Your task to perform on an android device: See recent photos Image 0: 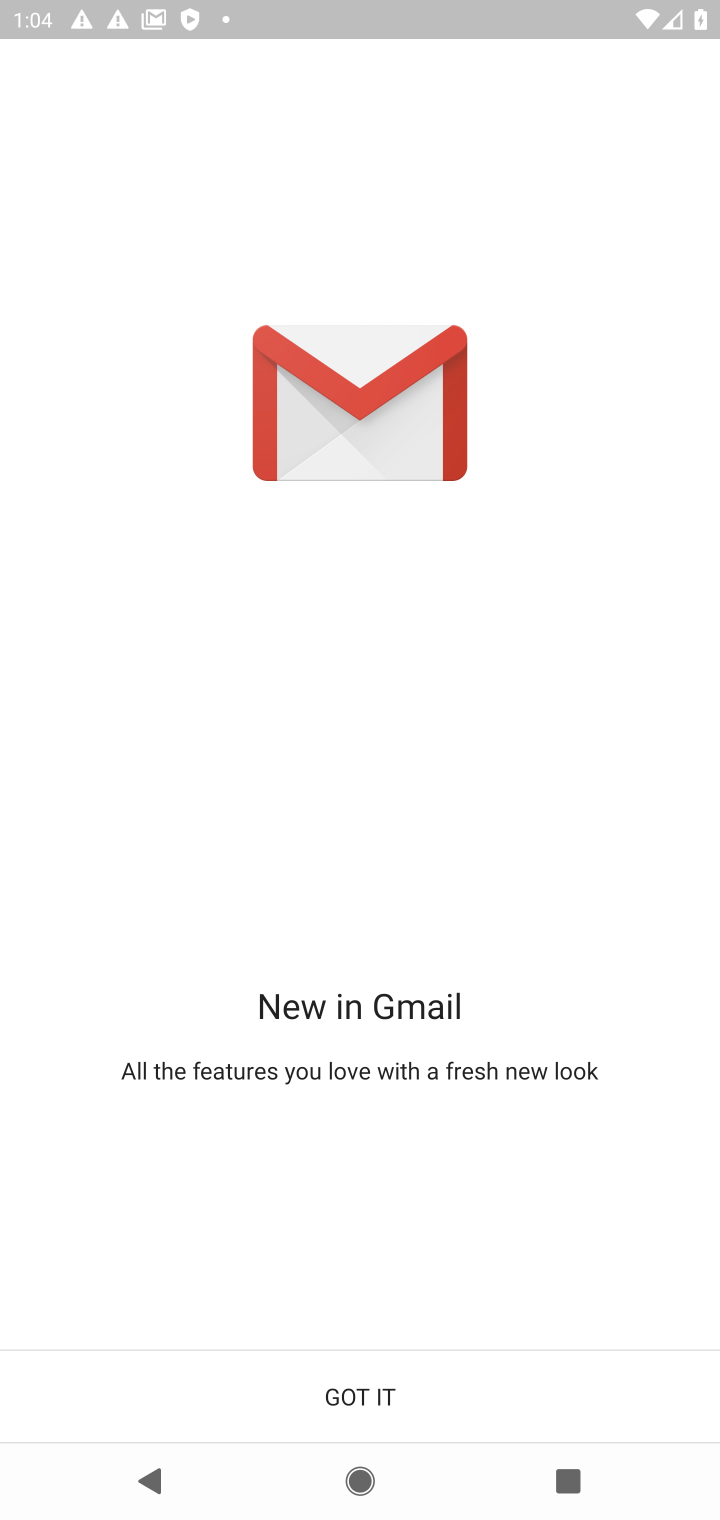
Step 0: press home button
Your task to perform on an android device: See recent photos Image 1: 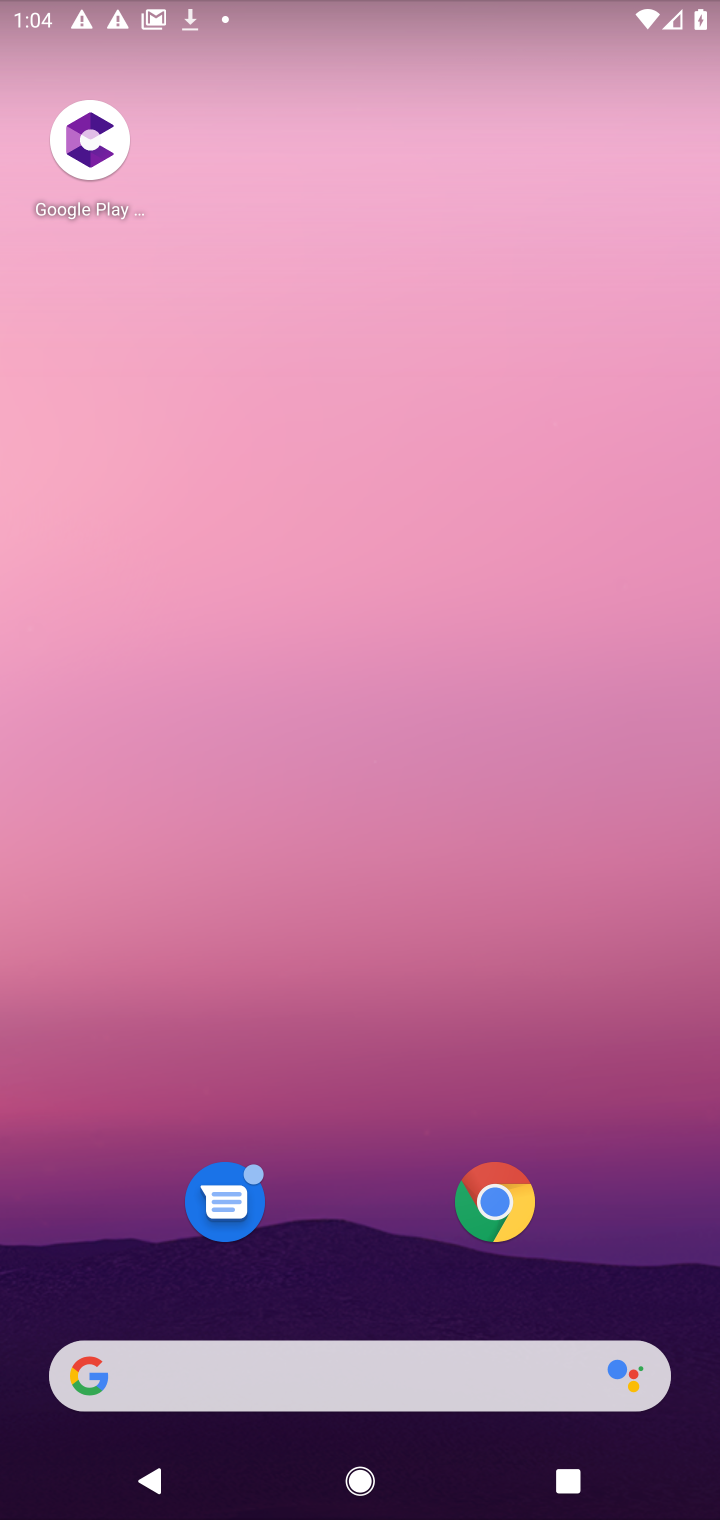
Step 1: drag from (579, 1257) to (643, 362)
Your task to perform on an android device: See recent photos Image 2: 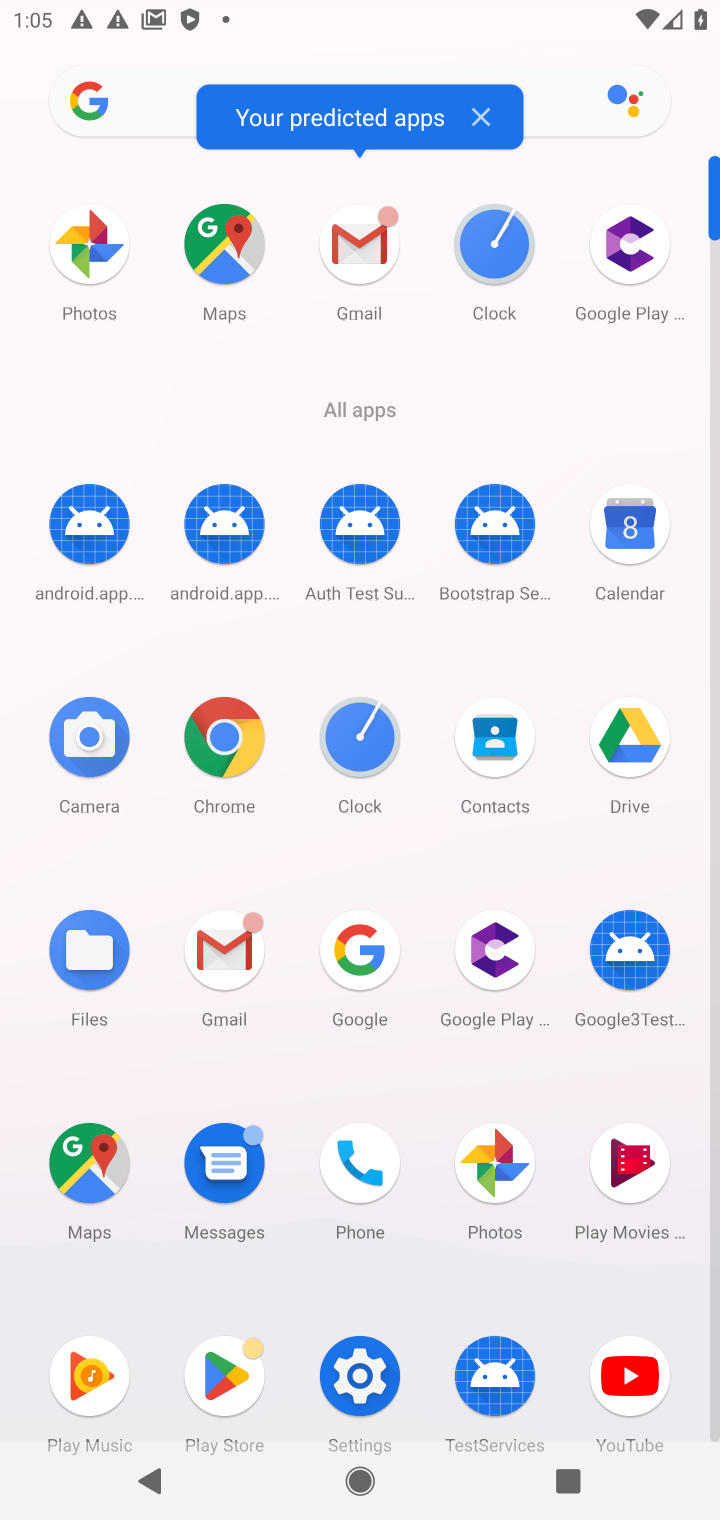
Step 2: click (502, 1173)
Your task to perform on an android device: See recent photos Image 3: 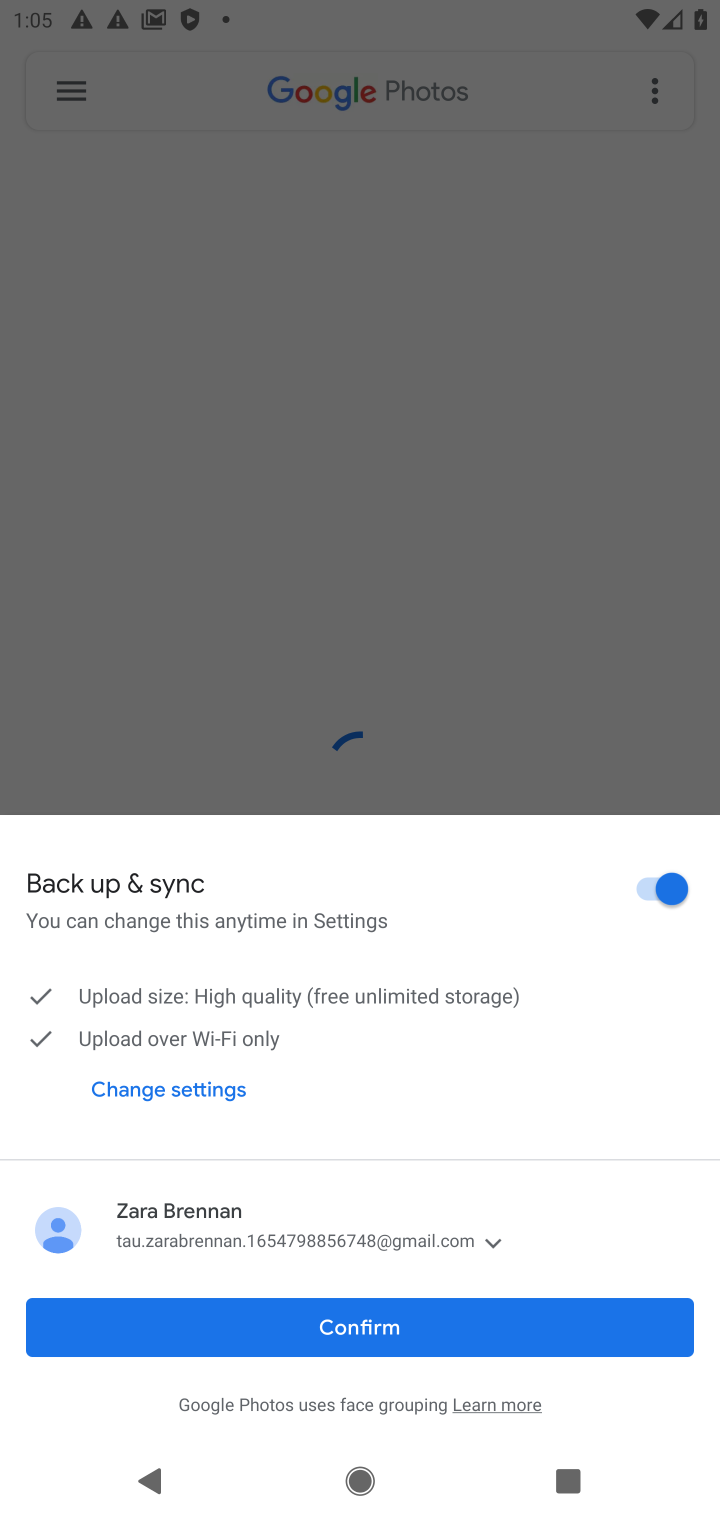
Step 3: click (442, 1339)
Your task to perform on an android device: See recent photos Image 4: 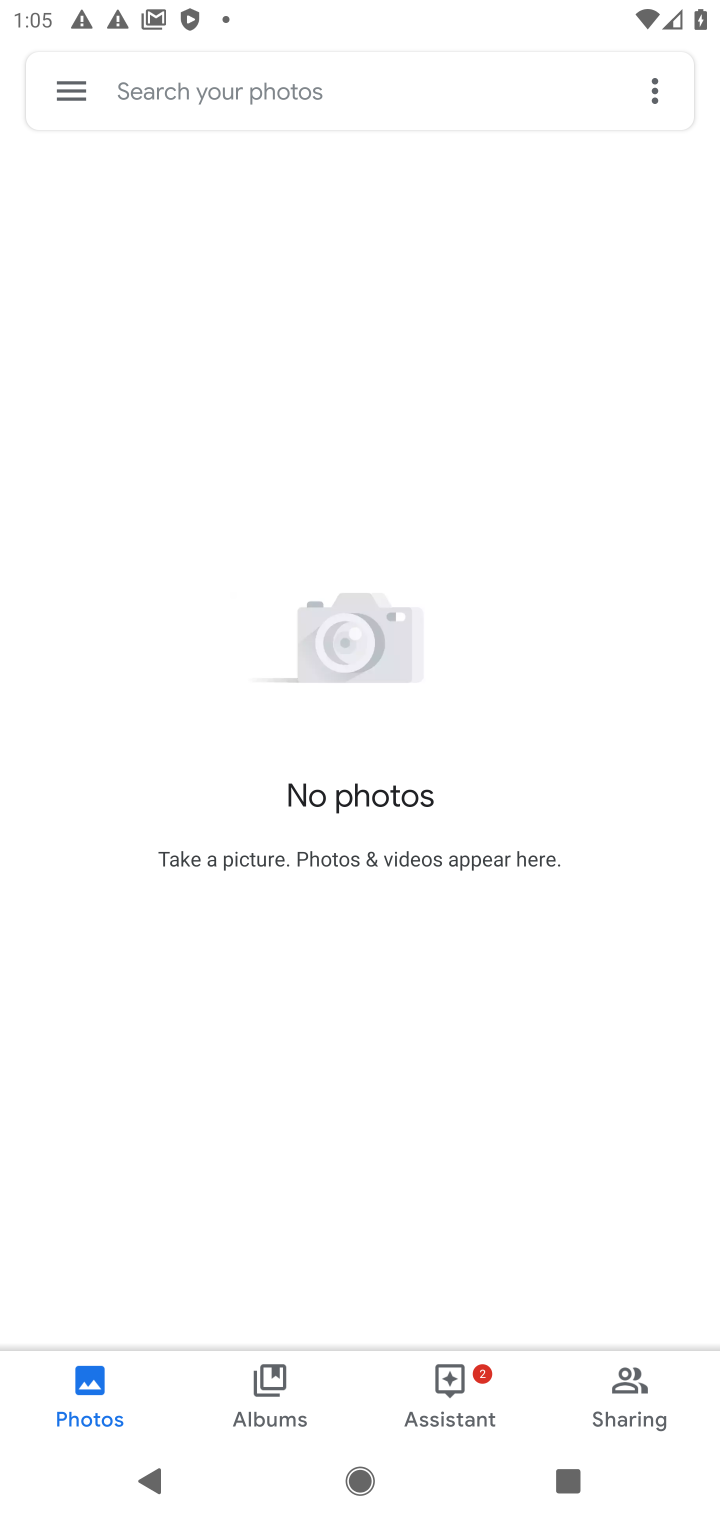
Step 4: task complete